Your task to perform on an android device: change text size in settings app Image 0: 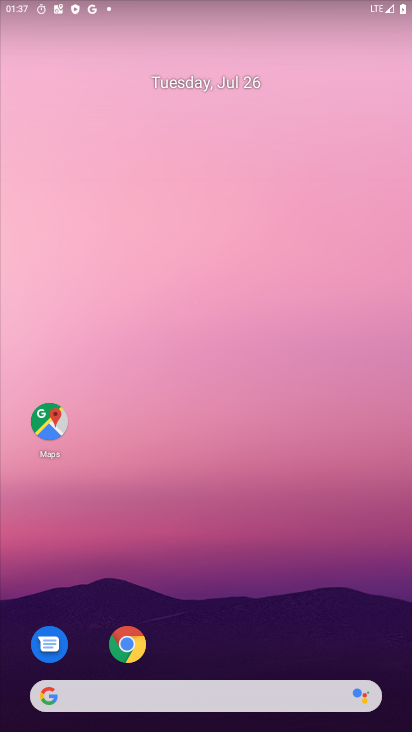
Step 0: drag from (235, 672) to (242, 23)
Your task to perform on an android device: change text size in settings app Image 1: 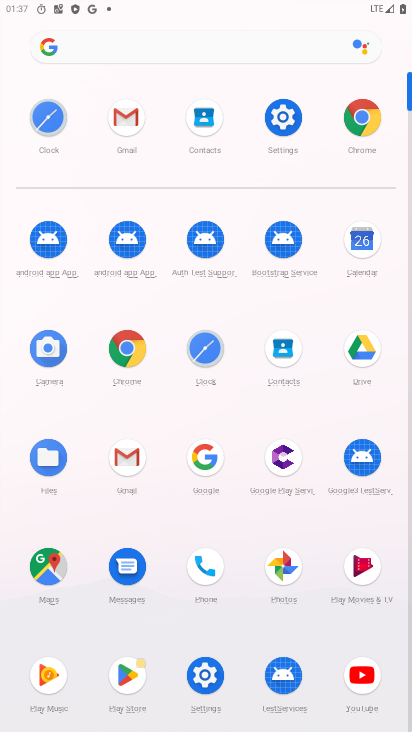
Step 1: click (285, 117)
Your task to perform on an android device: change text size in settings app Image 2: 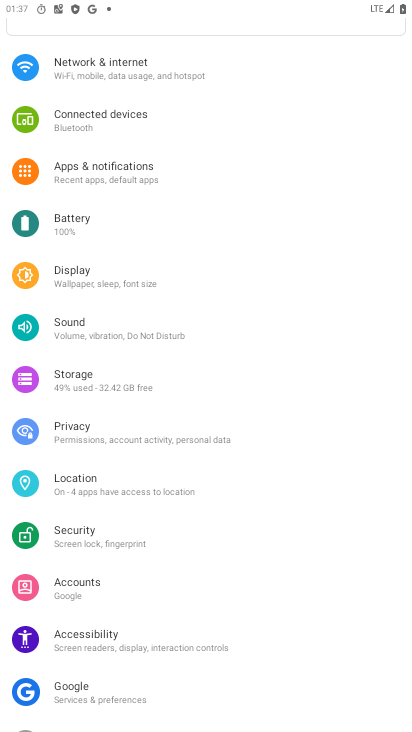
Step 2: click (67, 646)
Your task to perform on an android device: change text size in settings app Image 3: 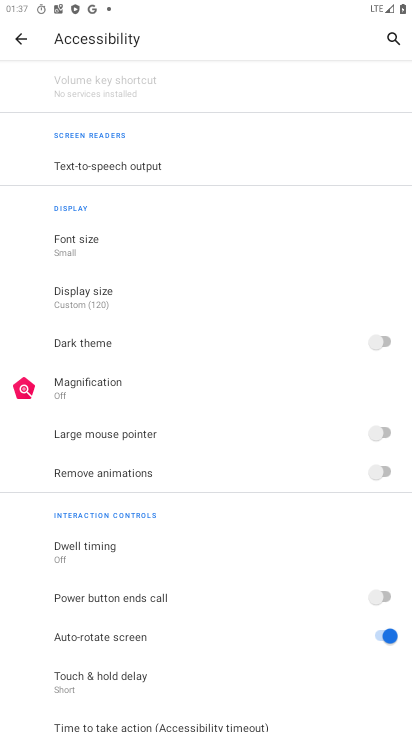
Step 3: click (83, 251)
Your task to perform on an android device: change text size in settings app Image 4: 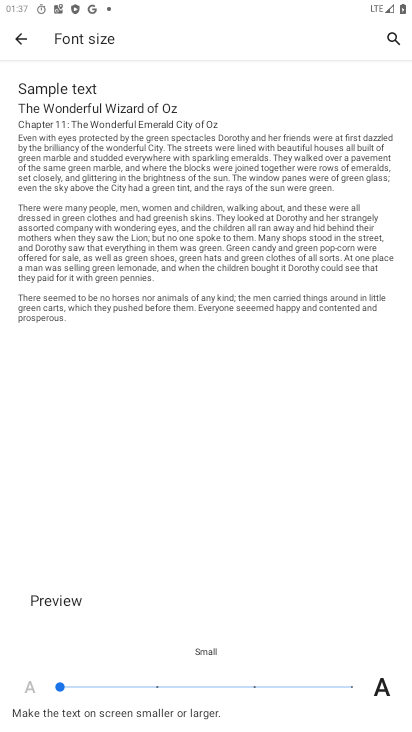
Step 4: click (348, 687)
Your task to perform on an android device: change text size in settings app Image 5: 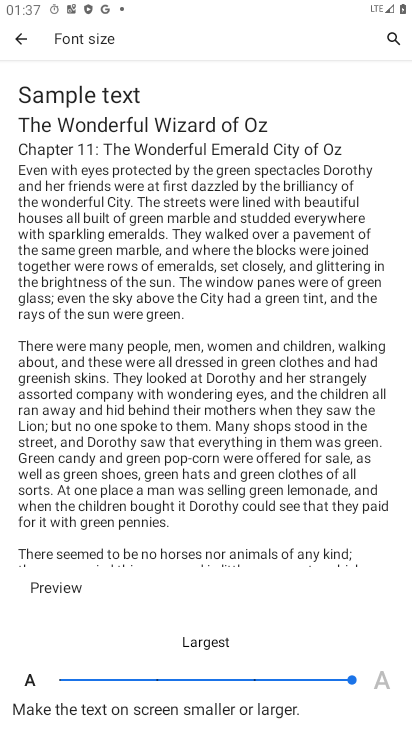
Step 5: task complete